Your task to perform on an android device: Show me productivity apps on the Play Store Image 0: 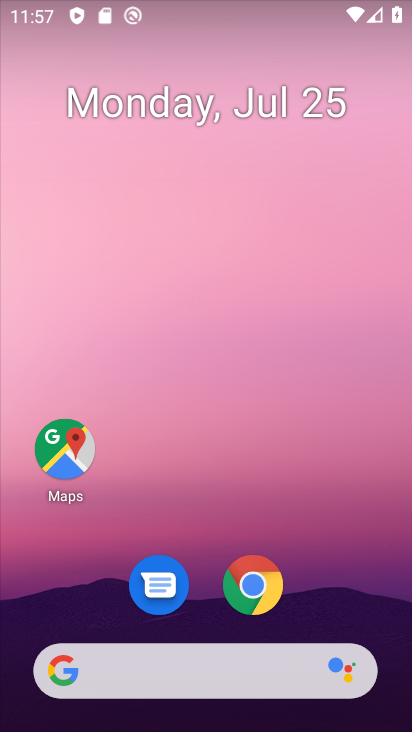
Step 0: drag from (313, 582) to (295, 39)
Your task to perform on an android device: Show me productivity apps on the Play Store Image 1: 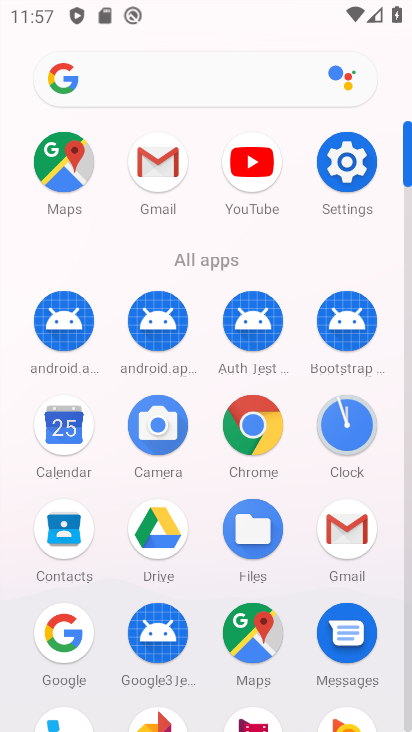
Step 1: drag from (201, 469) to (229, 40)
Your task to perform on an android device: Show me productivity apps on the Play Store Image 2: 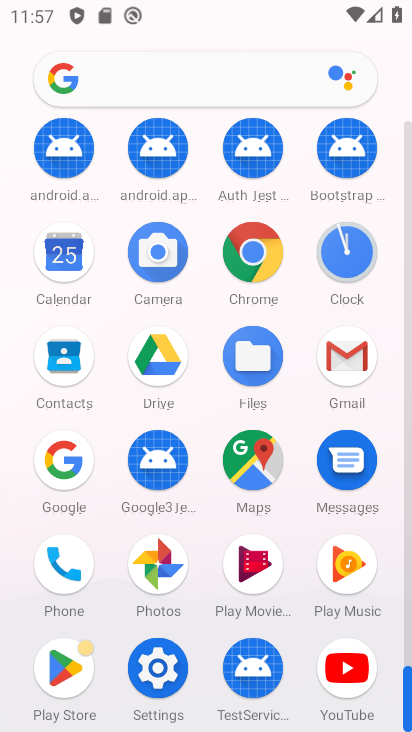
Step 2: click (75, 670)
Your task to perform on an android device: Show me productivity apps on the Play Store Image 3: 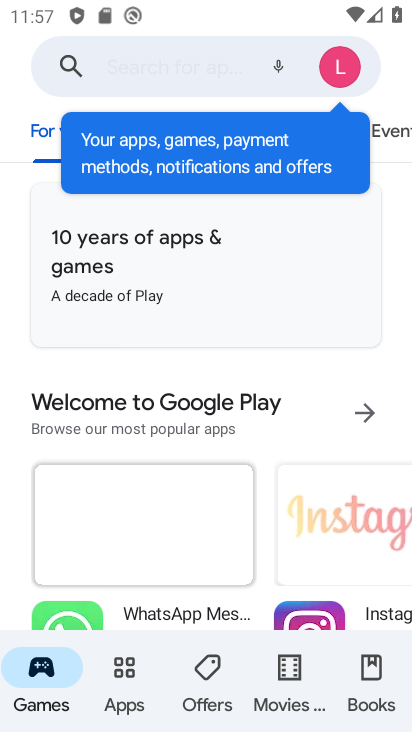
Step 3: click (121, 671)
Your task to perform on an android device: Show me productivity apps on the Play Store Image 4: 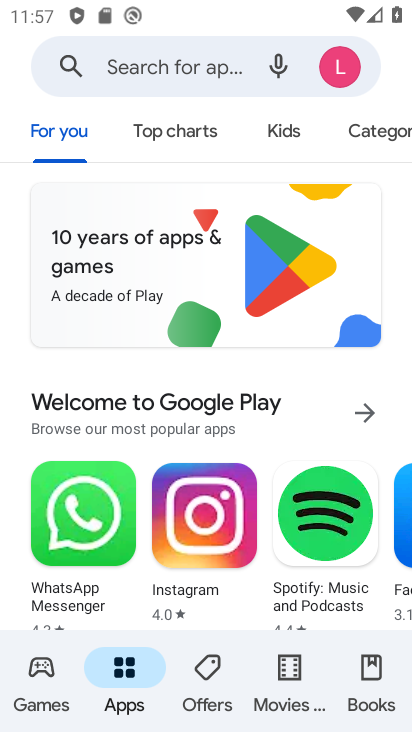
Step 4: click (376, 123)
Your task to perform on an android device: Show me productivity apps on the Play Store Image 5: 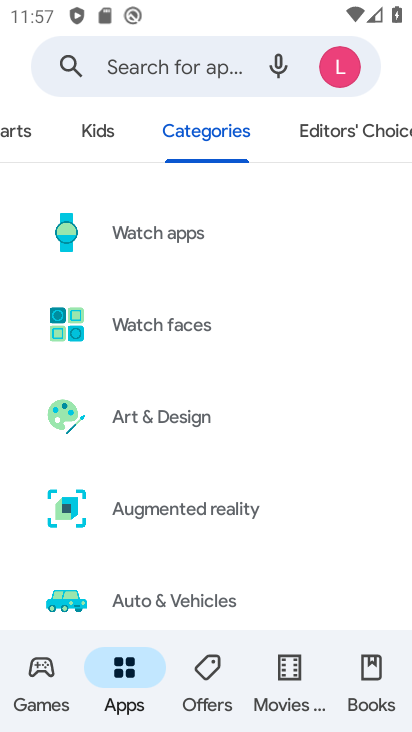
Step 5: drag from (275, 532) to (266, 126)
Your task to perform on an android device: Show me productivity apps on the Play Store Image 6: 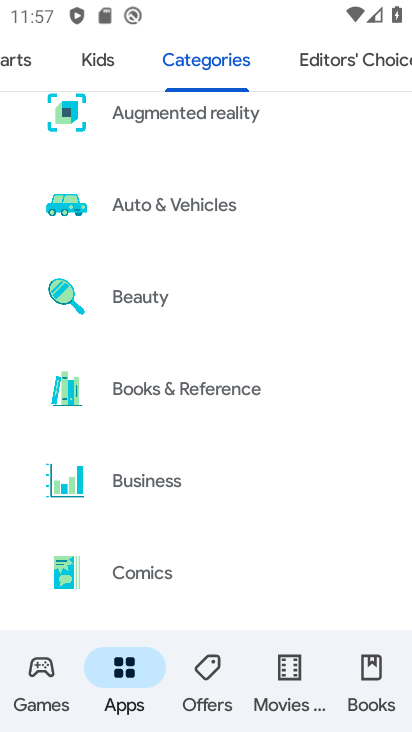
Step 6: drag from (251, 508) to (268, 87)
Your task to perform on an android device: Show me productivity apps on the Play Store Image 7: 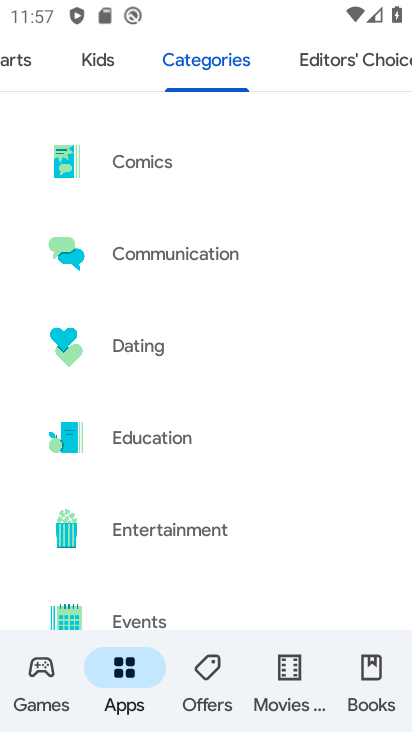
Step 7: drag from (236, 564) to (249, 129)
Your task to perform on an android device: Show me productivity apps on the Play Store Image 8: 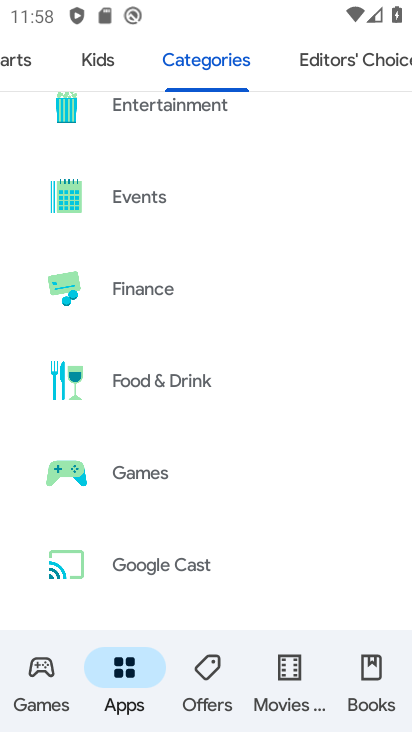
Step 8: drag from (243, 519) to (270, 117)
Your task to perform on an android device: Show me productivity apps on the Play Store Image 9: 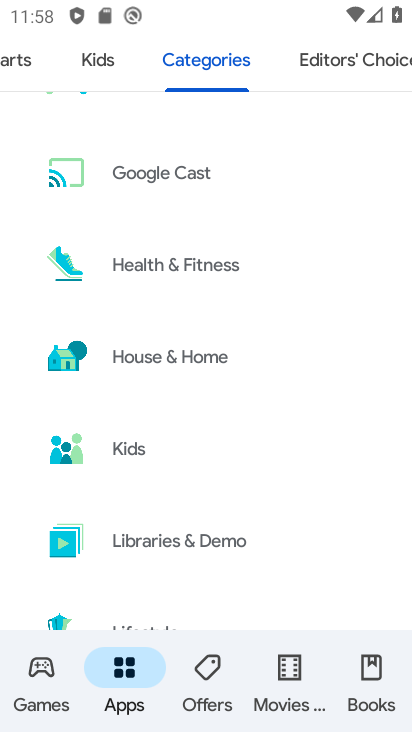
Step 9: drag from (253, 568) to (263, 168)
Your task to perform on an android device: Show me productivity apps on the Play Store Image 10: 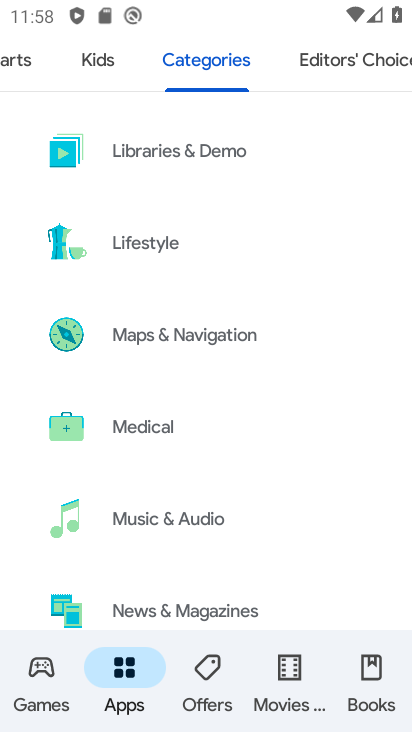
Step 10: drag from (224, 503) to (222, 108)
Your task to perform on an android device: Show me productivity apps on the Play Store Image 11: 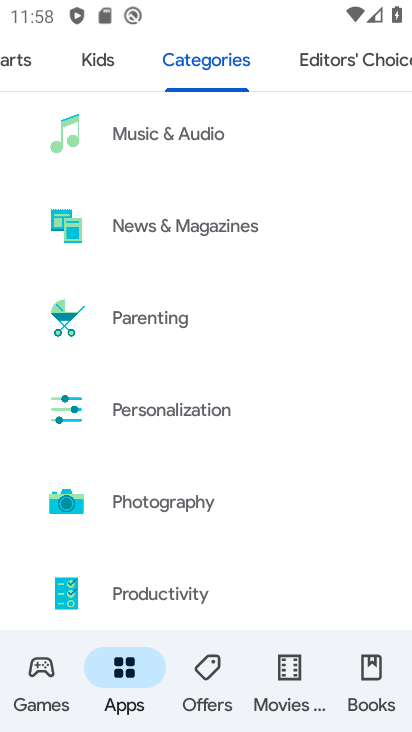
Step 11: drag from (250, 512) to (263, 218)
Your task to perform on an android device: Show me productivity apps on the Play Store Image 12: 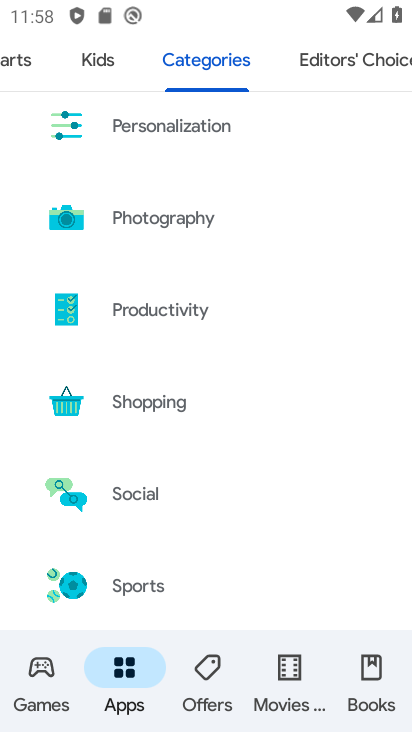
Step 12: click (196, 299)
Your task to perform on an android device: Show me productivity apps on the Play Store Image 13: 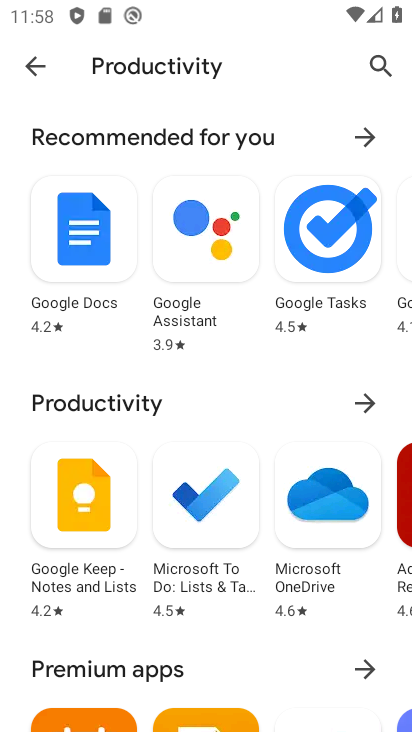
Step 13: task complete